Your task to perform on an android device: stop showing notifications on the lock screen Image 0: 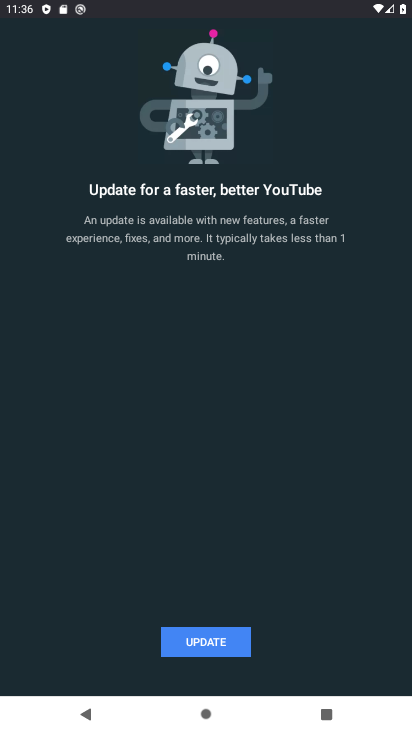
Step 0: press home button
Your task to perform on an android device: stop showing notifications on the lock screen Image 1: 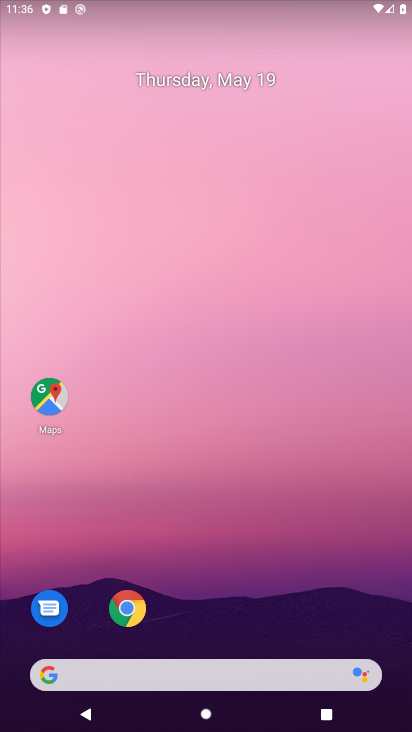
Step 1: drag from (371, 609) to (373, 166)
Your task to perform on an android device: stop showing notifications on the lock screen Image 2: 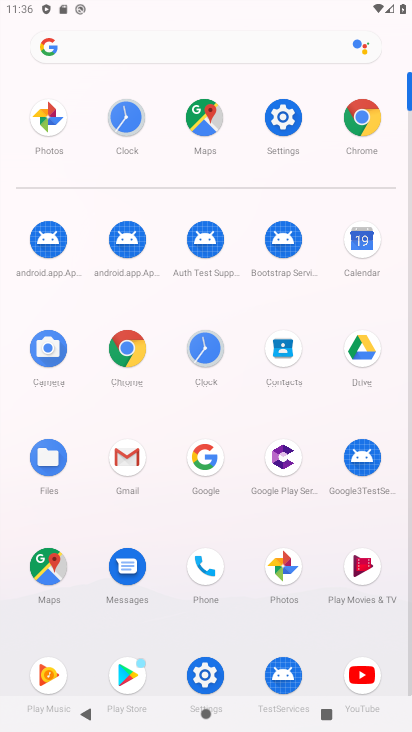
Step 2: click (279, 149)
Your task to perform on an android device: stop showing notifications on the lock screen Image 3: 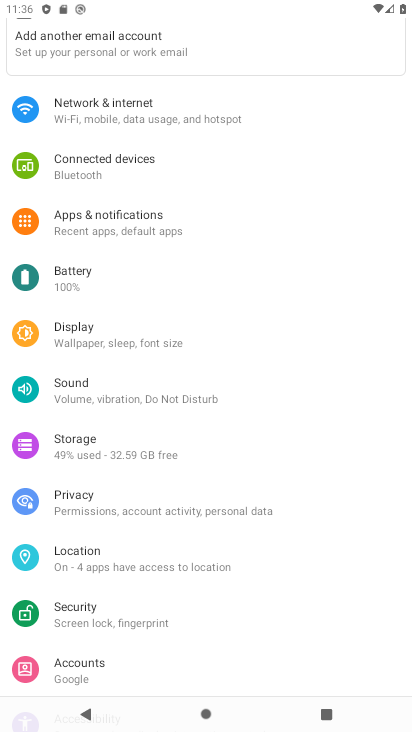
Step 3: drag from (332, 600) to (338, 439)
Your task to perform on an android device: stop showing notifications on the lock screen Image 4: 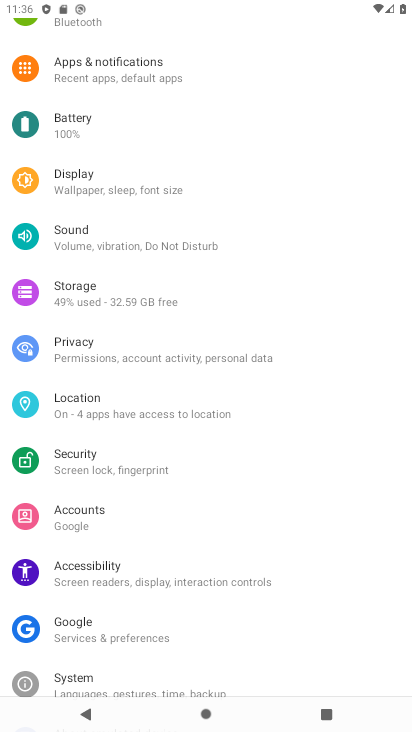
Step 4: drag from (317, 584) to (315, 465)
Your task to perform on an android device: stop showing notifications on the lock screen Image 5: 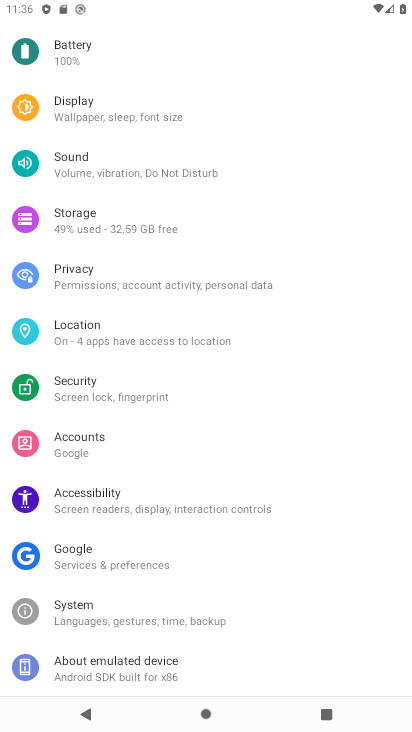
Step 5: drag from (348, 667) to (333, 512)
Your task to perform on an android device: stop showing notifications on the lock screen Image 6: 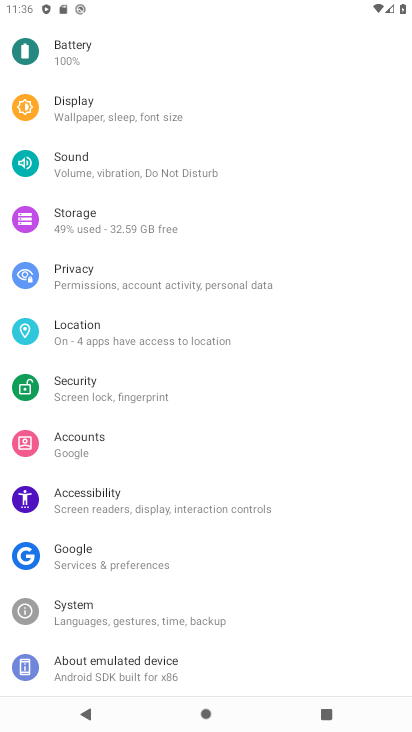
Step 6: drag from (329, 302) to (330, 488)
Your task to perform on an android device: stop showing notifications on the lock screen Image 7: 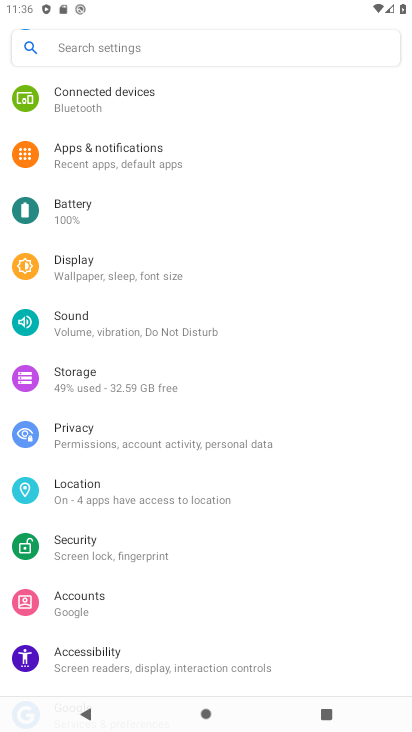
Step 7: drag from (319, 318) to (321, 495)
Your task to perform on an android device: stop showing notifications on the lock screen Image 8: 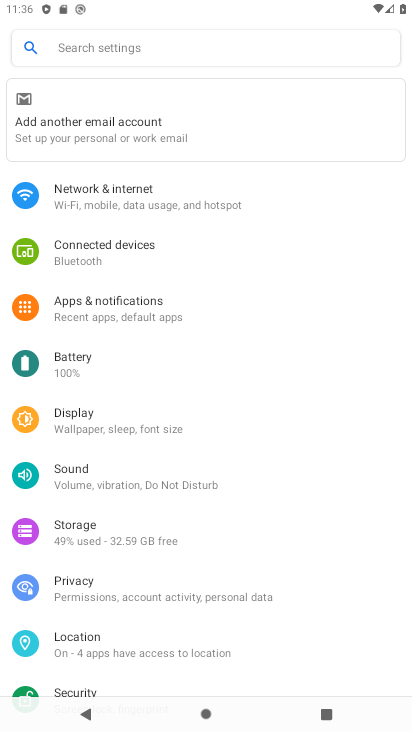
Step 8: drag from (308, 306) to (308, 428)
Your task to perform on an android device: stop showing notifications on the lock screen Image 9: 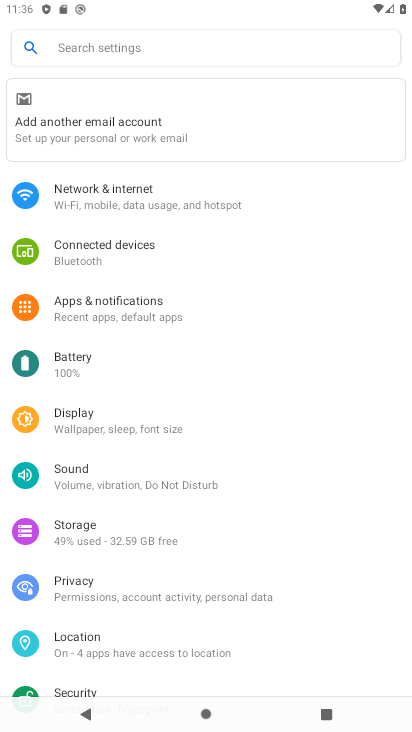
Step 9: click (187, 320)
Your task to perform on an android device: stop showing notifications on the lock screen Image 10: 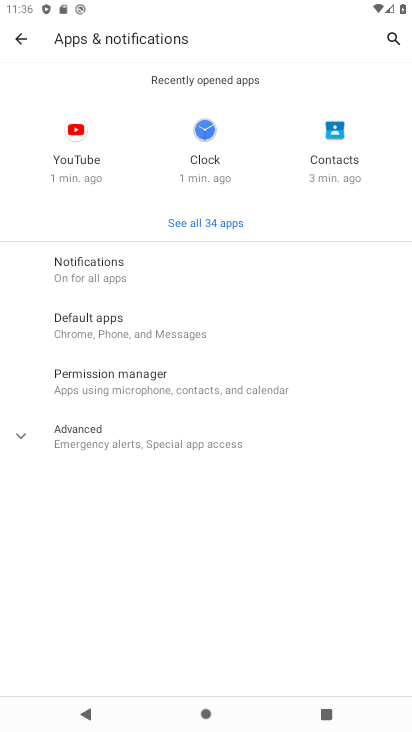
Step 10: click (117, 269)
Your task to perform on an android device: stop showing notifications on the lock screen Image 11: 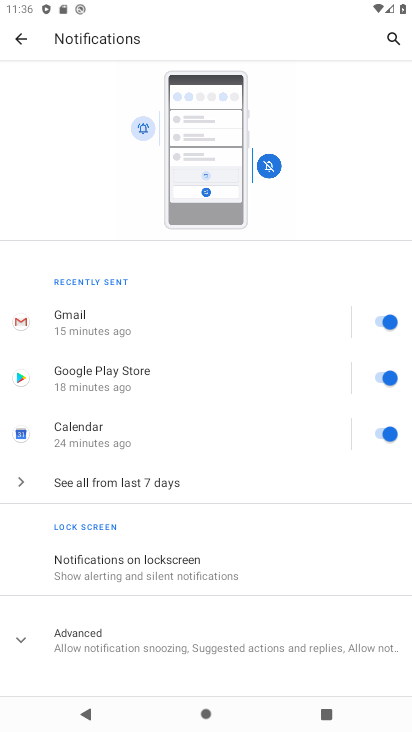
Step 11: drag from (292, 586) to (282, 412)
Your task to perform on an android device: stop showing notifications on the lock screen Image 12: 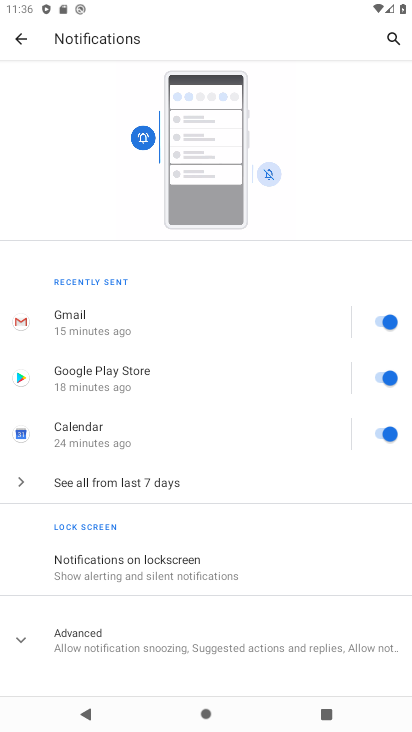
Step 12: click (161, 581)
Your task to perform on an android device: stop showing notifications on the lock screen Image 13: 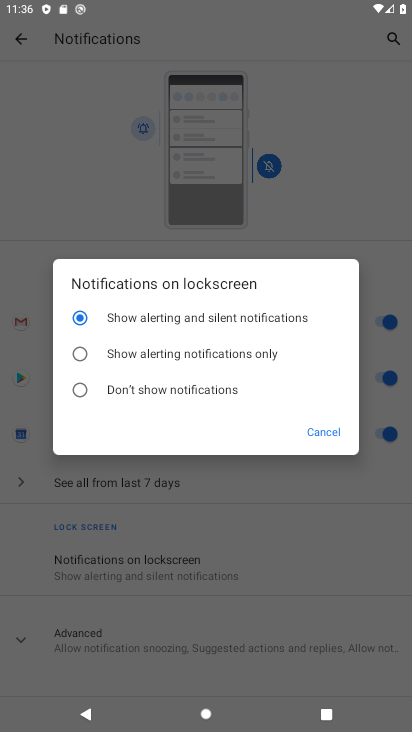
Step 13: click (167, 391)
Your task to perform on an android device: stop showing notifications on the lock screen Image 14: 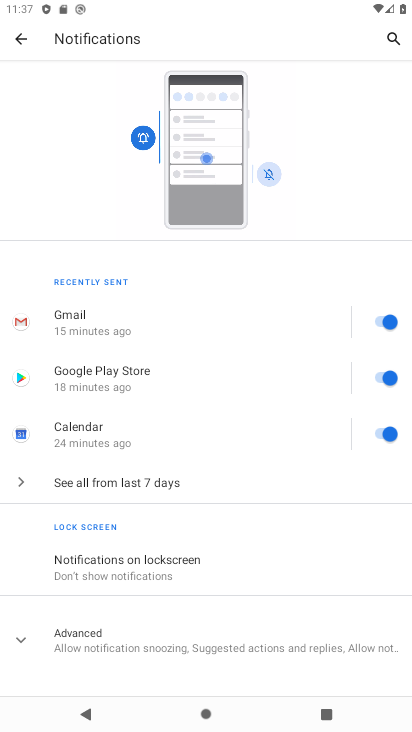
Step 14: task complete